Your task to perform on an android device: Open settings on Google Maps Image 0: 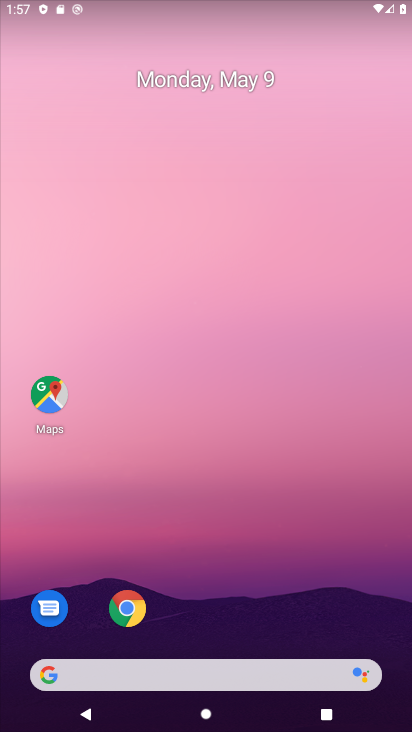
Step 0: click (42, 410)
Your task to perform on an android device: Open settings on Google Maps Image 1: 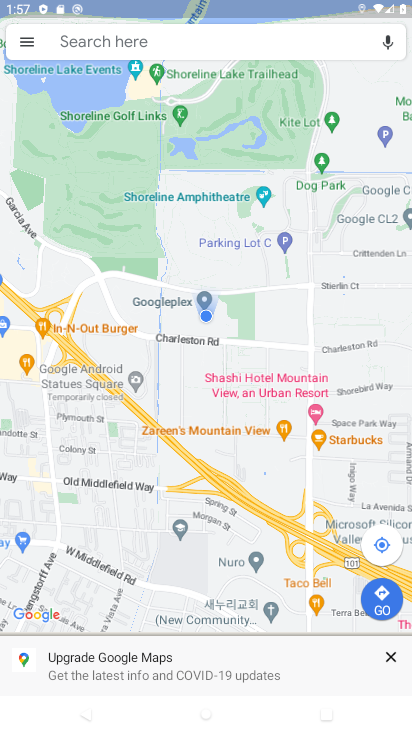
Step 1: click (39, 41)
Your task to perform on an android device: Open settings on Google Maps Image 2: 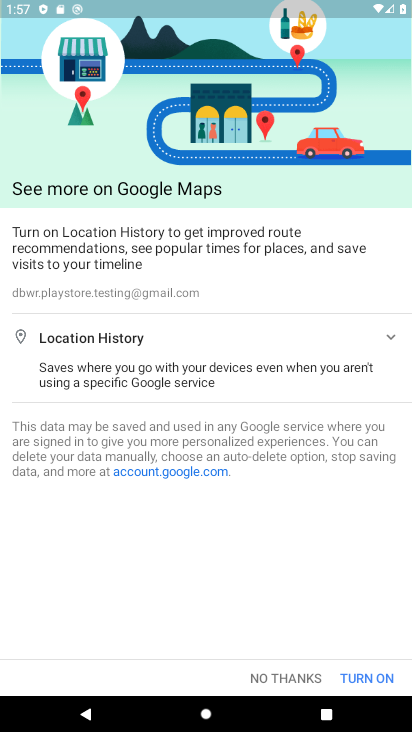
Step 2: press back button
Your task to perform on an android device: Open settings on Google Maps Image 3: 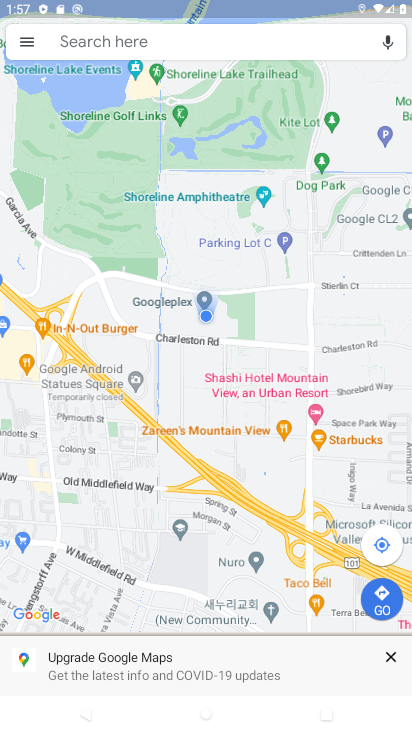
Step 3: click (35, 41)
Your task to perform on an android device: Open settings on Google Maps Image 4: 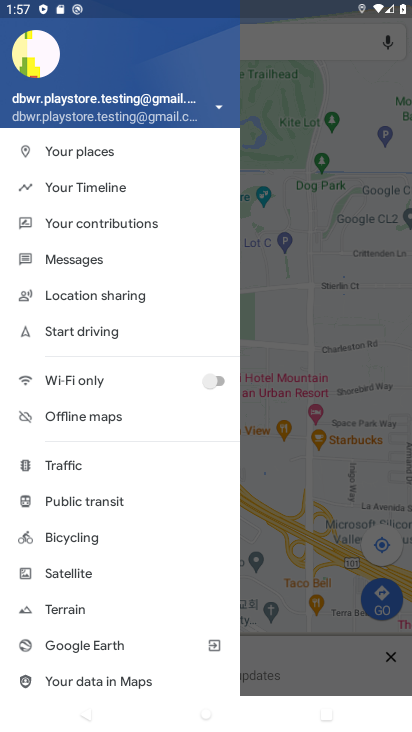
Step 4: drag from (116, 675) to (160, 438)
Your task to perform on an android device: Open settings on Google Maps Image 5: 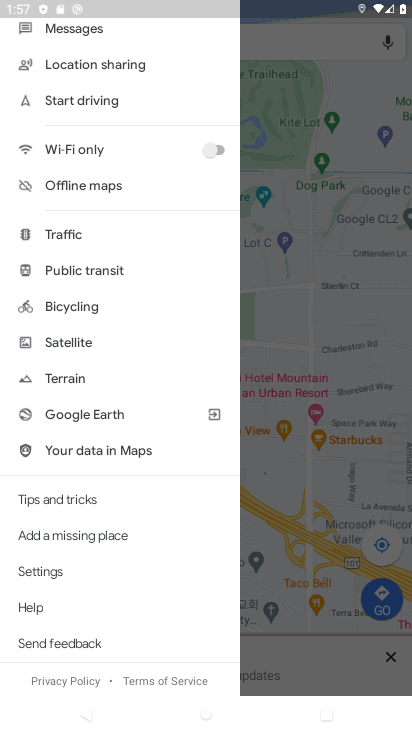
Step 5: click (119, 588)
Your task to perform on an android device: Open settings on Google Maps Image 6: 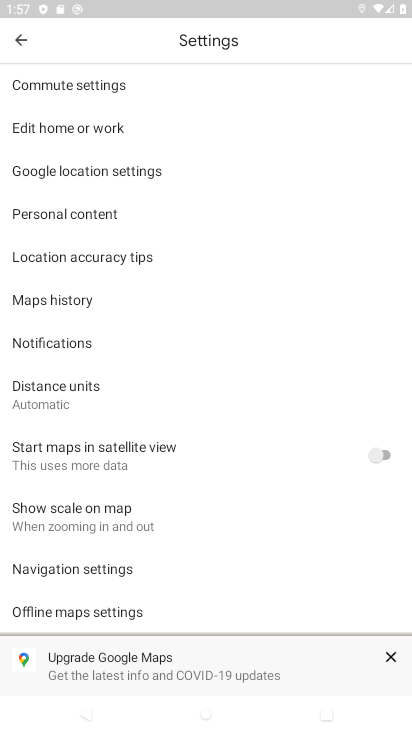
Step 6: task complete